Your task to perform on an android device: Go to network settings Image 0: 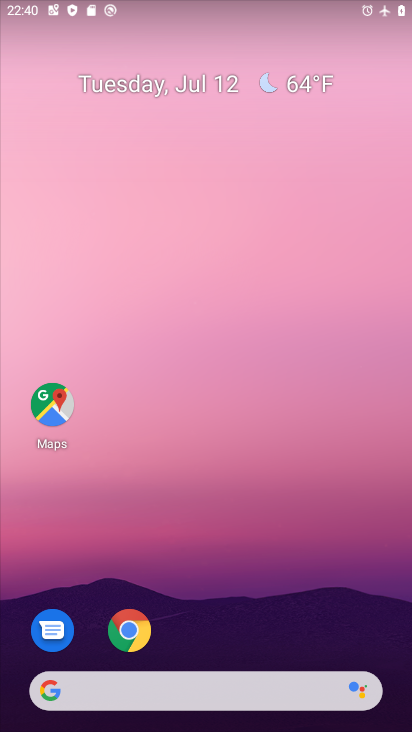
Step 0: drag from (233, 663) to (386, 700)
Your task to perform on an android device: Go to network settings Image 1: 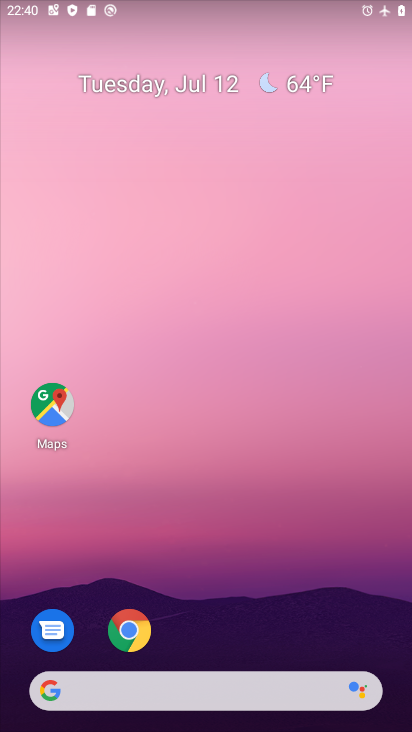
Step 1: click (215, 647)
Your task to perform on an android device: Go to network settings Image 2: 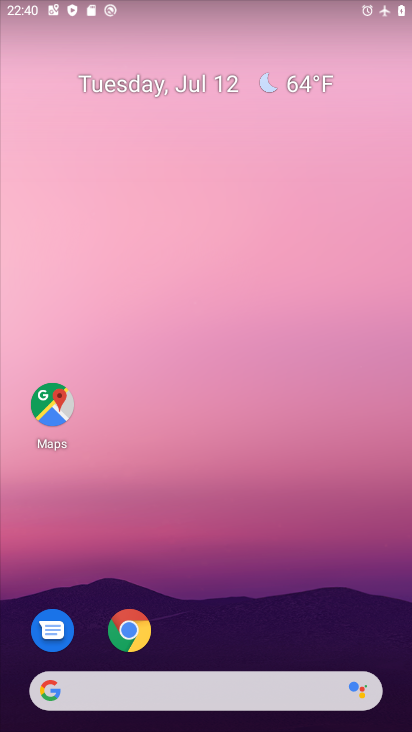
Step 2: drag from (215, 647) to (193, 97)
Your task to perform on an android device: Go to network settings Image 3: 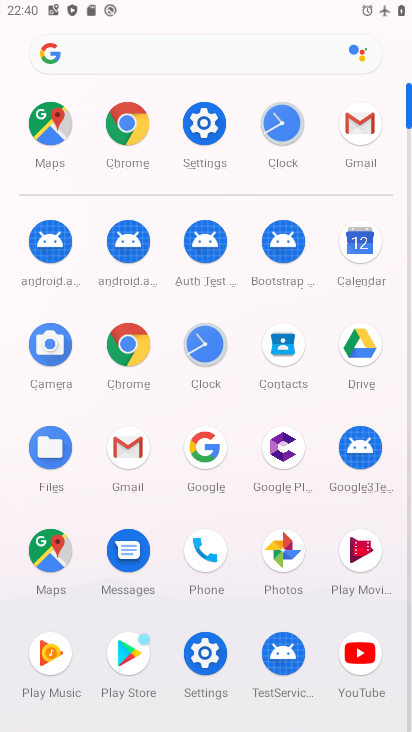
Step 3: click (195, 125)
Your task to perform on an android device: Go to network settings Image 4: 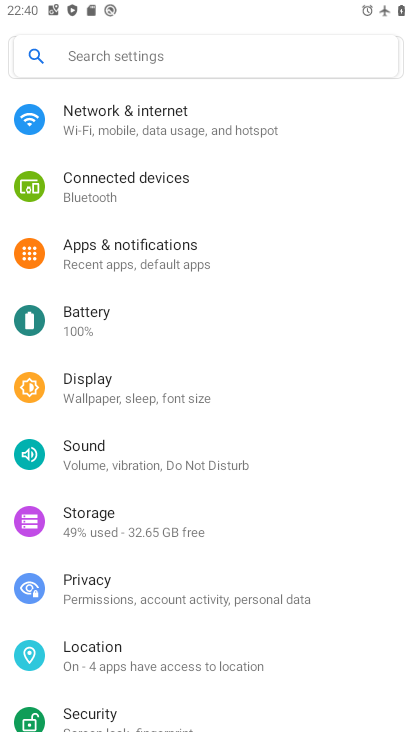
Step 4: click (110, 140)
Your task to perform on an android device: Go to network settings Image 5: 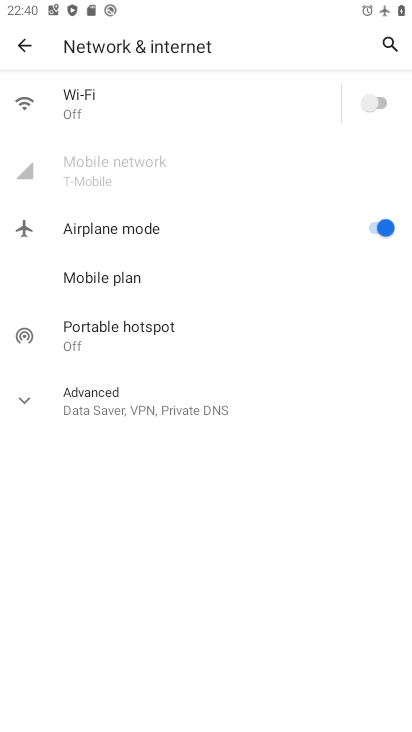
Step 5: task complete